Your task to perform on an android device: Open the calendar app, open the side menu, and click the "Day" option Image 0: 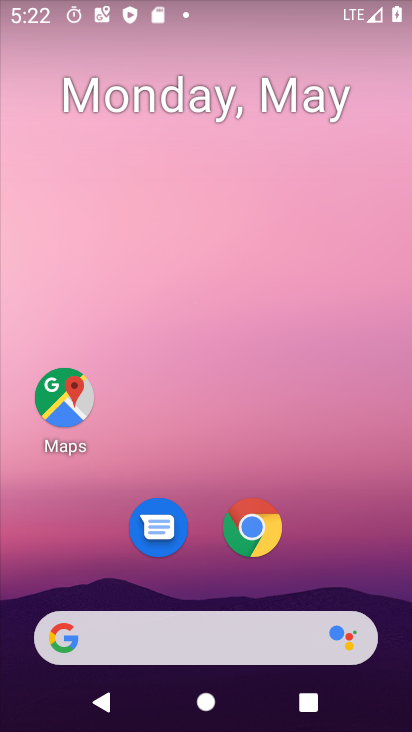
Step 0: drag from (361, 369) to (324, 161)
Your task to perform on an android device: Open the calendar app, open the side menu, and click the "Day" option Image 1: 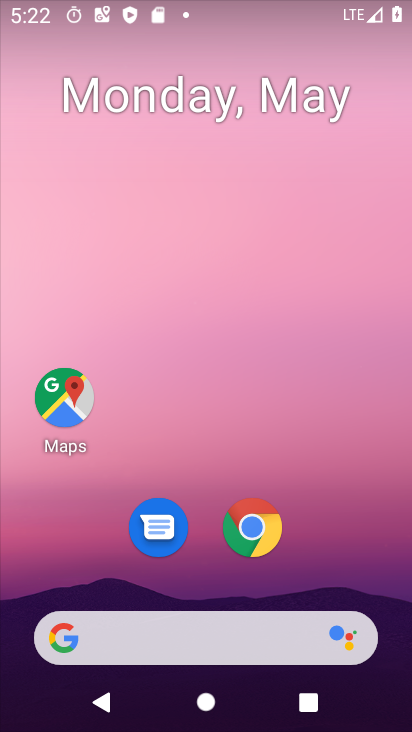
Step 1: drag from (403, 703) to (324, 66)
Your task to perform on an android device: Open the calendar app, open the side menu, and click the "Day" option Image 2: 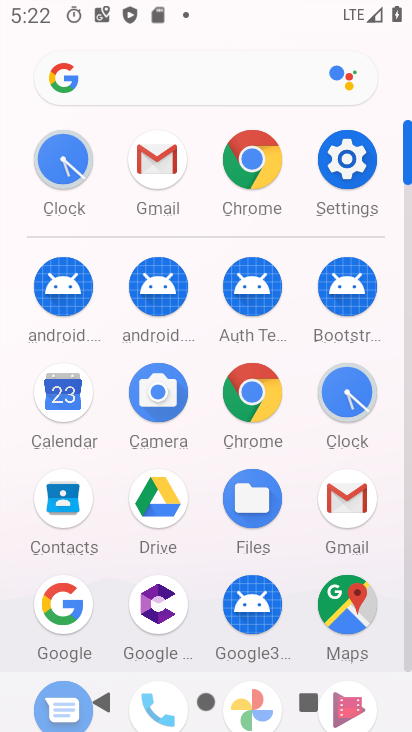
Step 2: click (62, 406)
Your task to perform on an android device: Open the calendar app, open the side menu, and click the "Day" option Image 3: 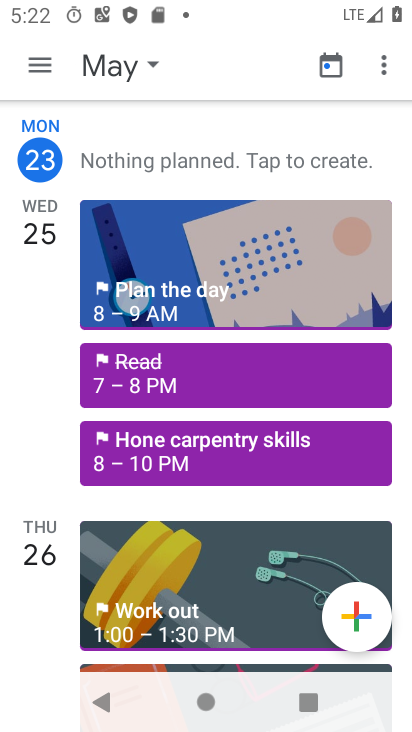
Step 3: click (42, 67)
Your task to perform on an android device: Open the calendar app, open the side menu, and click the "Day" option Image 4: 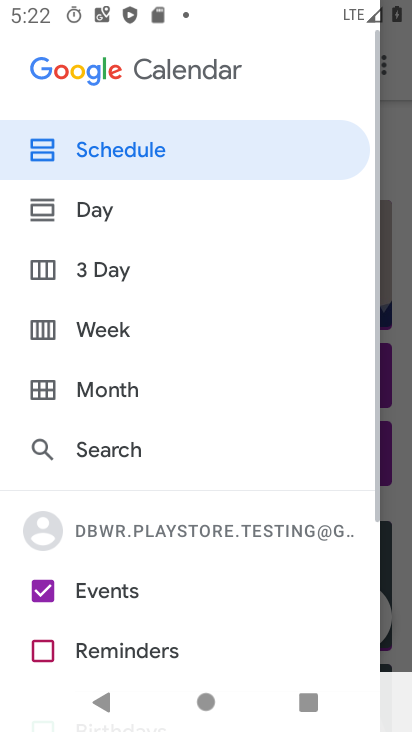
Step 4: click (95, 213)
Your task to perform on an android device: Open the calendar app, open the side menu, and click the "Day" option Image 5: 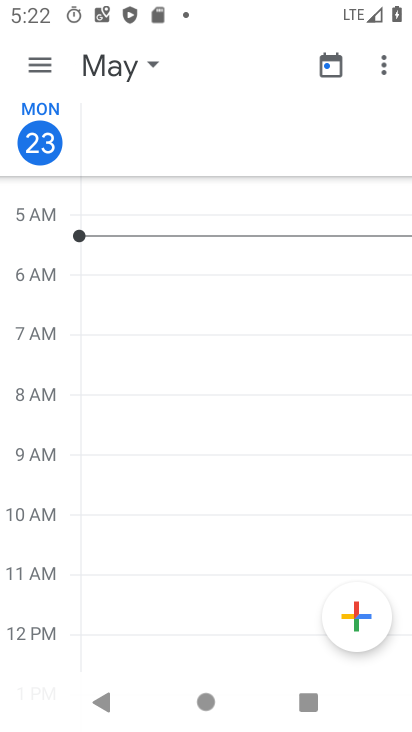
Step 5: task complete